Your task to perform on an android device: Search for vegetarian restaurants on Maps Image 0: 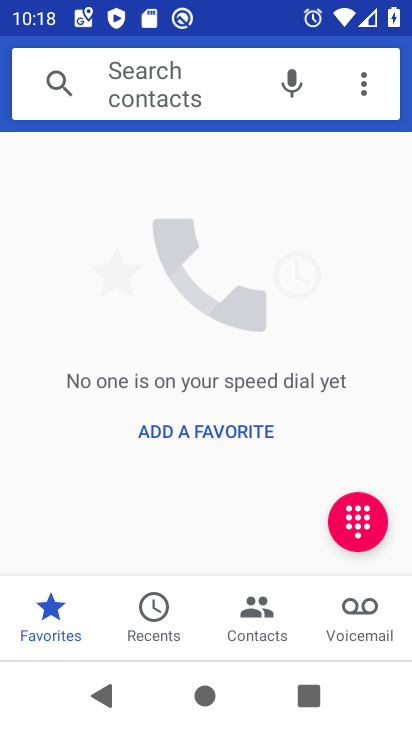
Step 0: press home button
Your task to perform on an android device: Search for vegetarian restaurants on Maps Image 1: 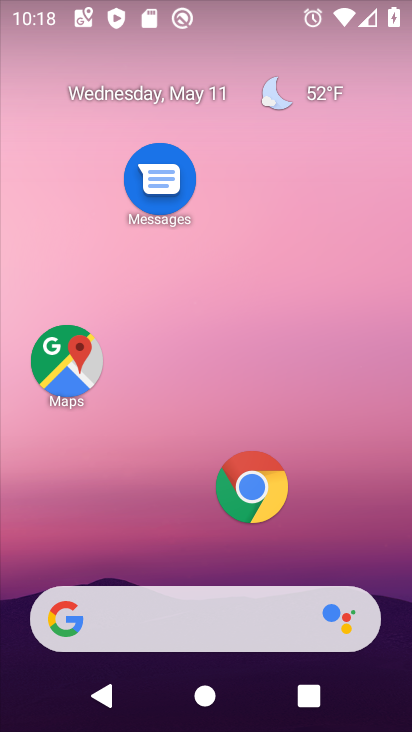
Step 1: click (41, 388)
Your task to perform on an android device: Search for vegetarian restaurants on Maps Image 2: 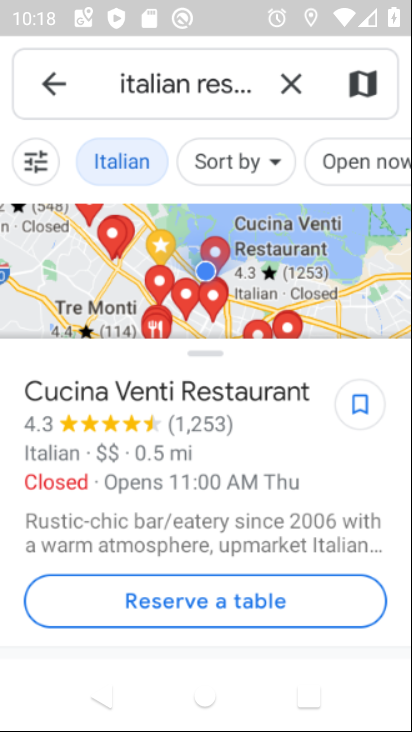
Step 2: click (283, 99)
Your task to perform on an android device: Search for vegetarian restaurants on Maps Image 3: 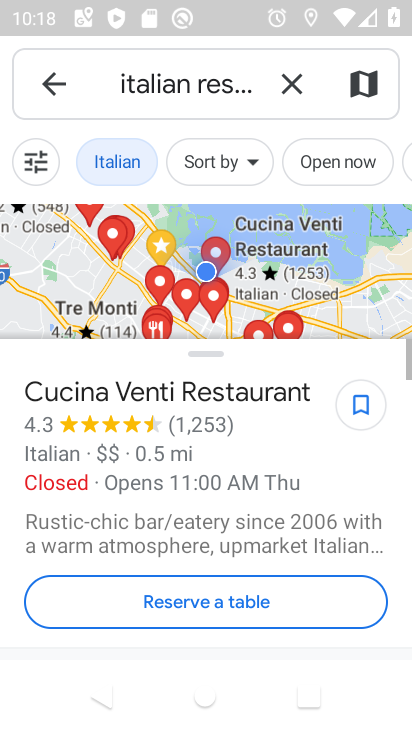
Step 3: click (291, 81)
Your task to perform on an android device: Search for vegetarian restaurants on Maps Image 4: 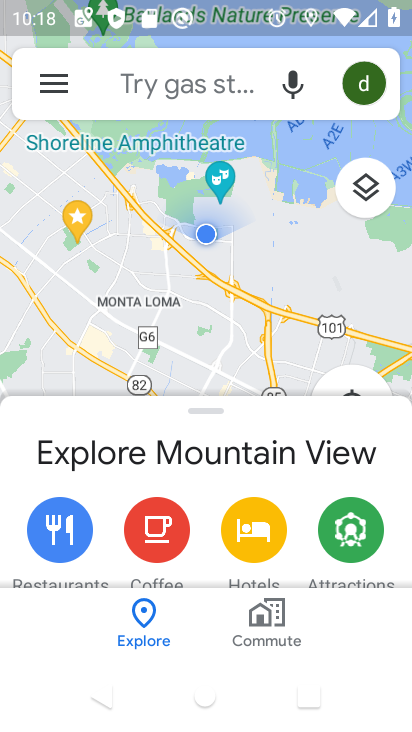
Step 4: click (209, 90)
Your task to perform on an android device: Search for vegetarian restaurants on Maps Image 5: 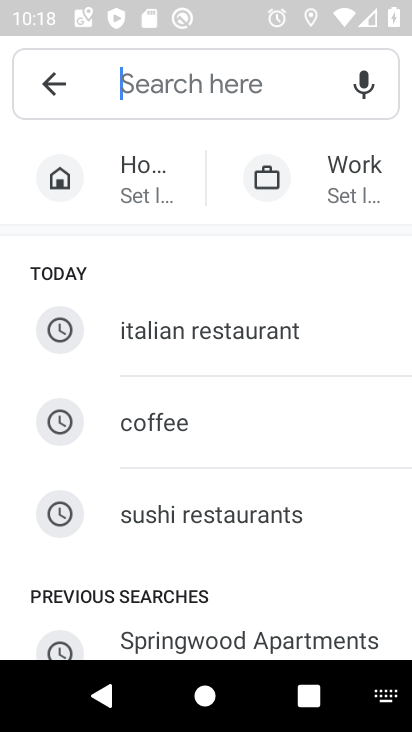
Step 5: type "vegetarian restaurants"
Your task to perform on an android device: Search for vegetarian restaurants on Maps Image 6: 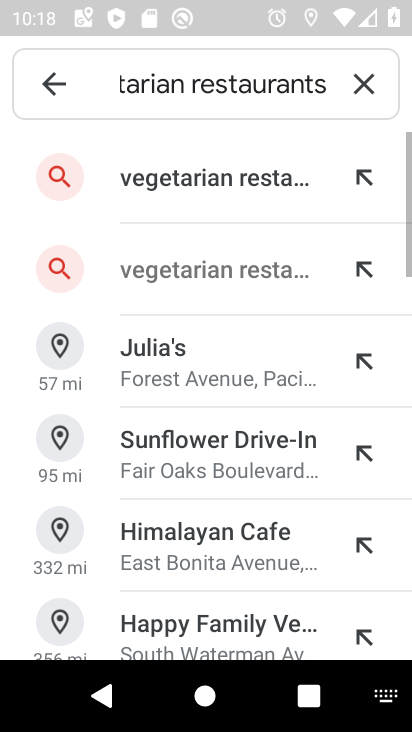
Step 6: click (221, 169)
Your task to perform on an android device: Search for vegetarian restaurants on Maps Image 7: 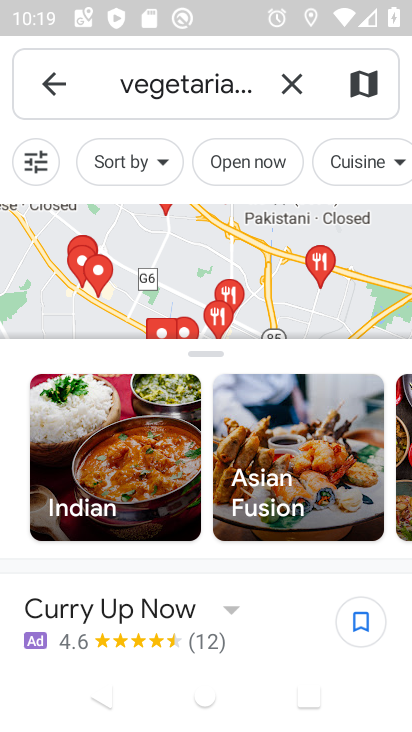
Step 7: task complete